Your task to perform on an android device: turn off improve location accuracy Image 0: 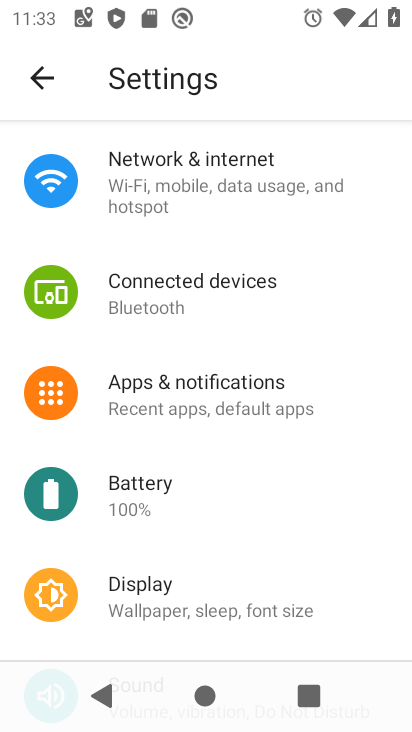
Step 0: drag from (157, 572) to (209, 291)
Your task to perform on an android device: turn off improve location accuracy Image 1: 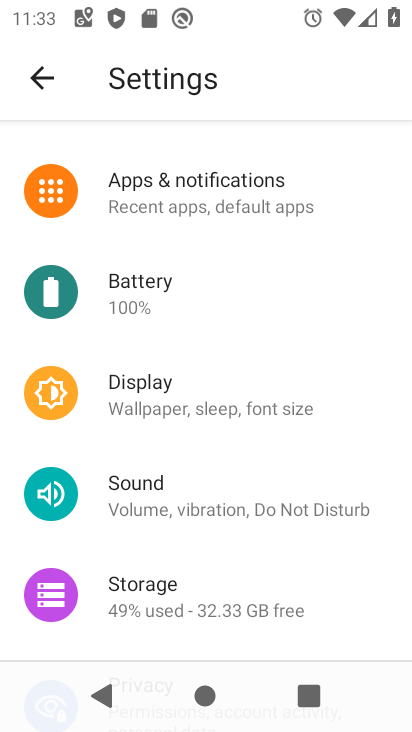
Step 1: drag from (204, 596) to (235, 325)
Your task to perform on an android device: turn off improve location accuracy Image 2: 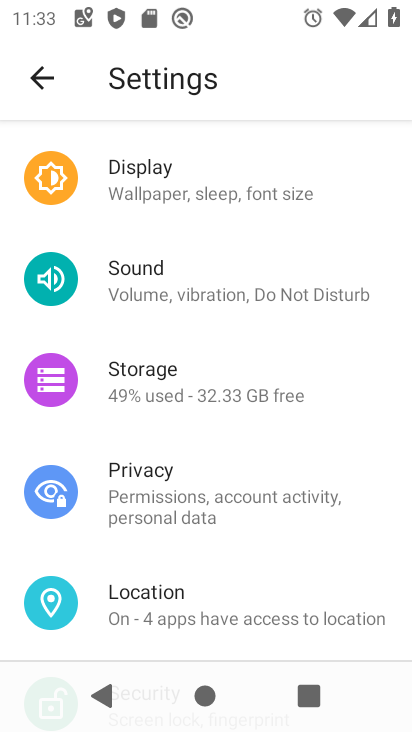
Step 2: click (182, 588)
Your task to perform on an android device: turn off improve location accuracy Image 3: 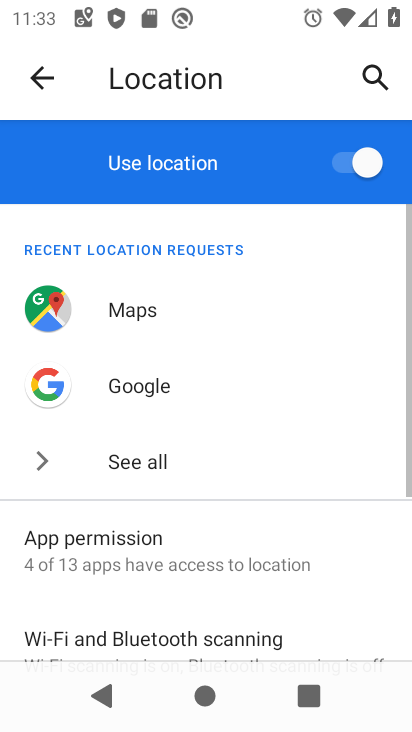
Step 3: drag from (199, 572) to (241, 247)
Your task to perform on an android device: turn off improve location accuracy Image 4: 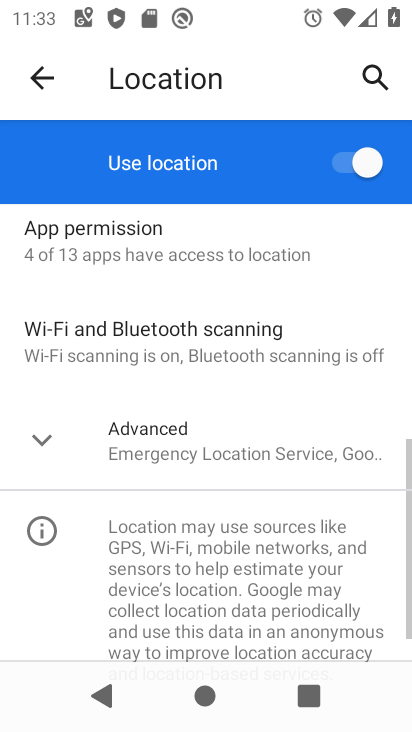
Step 4: drag from (215, 536) to (223, 360)
Your task to perform on an android device: turn off improve location accuracy Image 5: 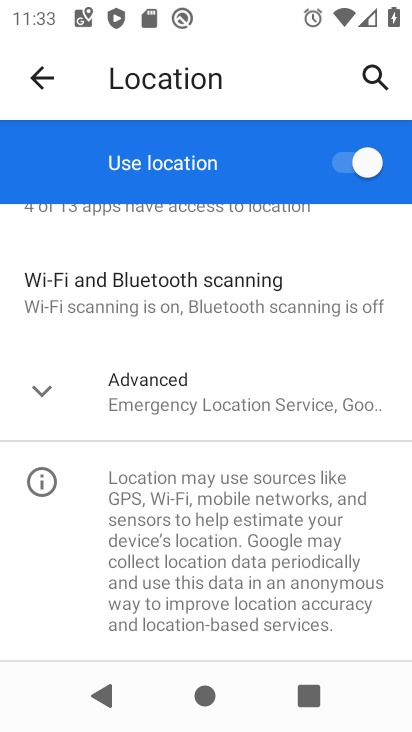
Step 5: click (113, 400)
Your task to perform on an android device: turn off improve location accuracy Image 6: 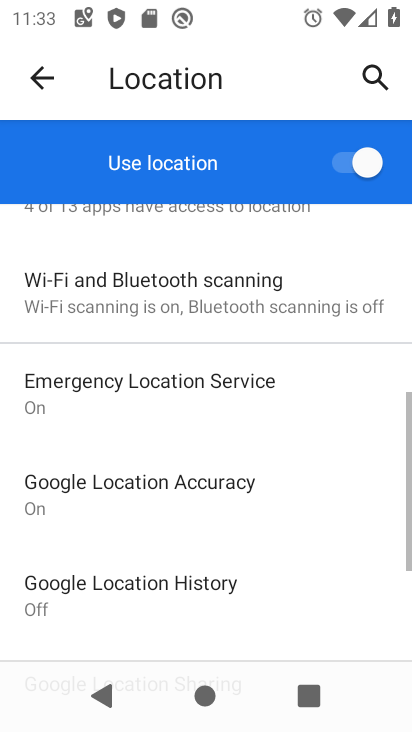
Step 6: drag from (180, 587) to (230, 423)
Your task to perform on an android device: turn off improve location accuracy Image 7: 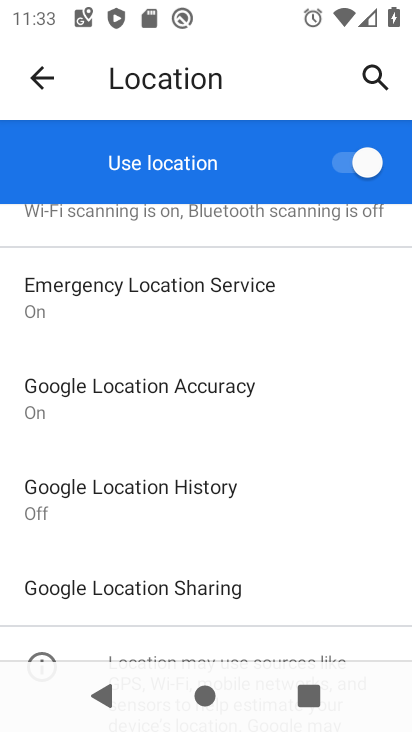
Step 7: drag from (225, 550) to (258, 424)
Your task to perform on an android device: turn off improve location accuracy Image 8: 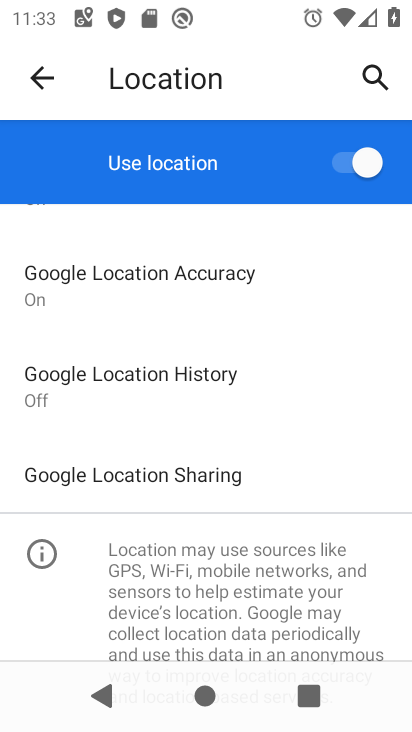
Step 8: click (208, 277)
Your task to perform on an android device: turn off improve location accuracy Image 9: 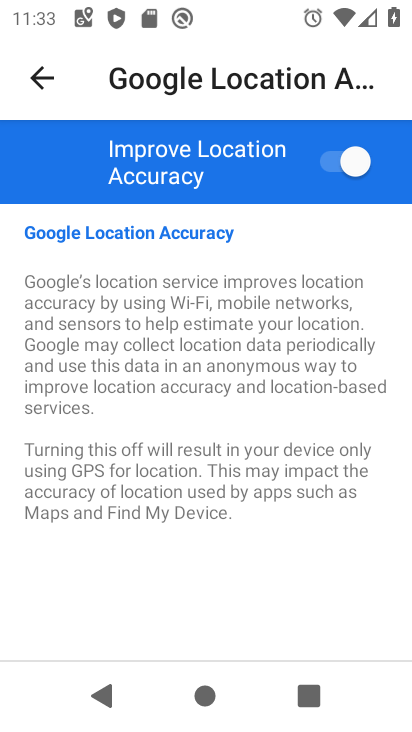
Step 9: click (322, 166)
Your task to perform on an android device: turn off improve location accuracy Image 10: 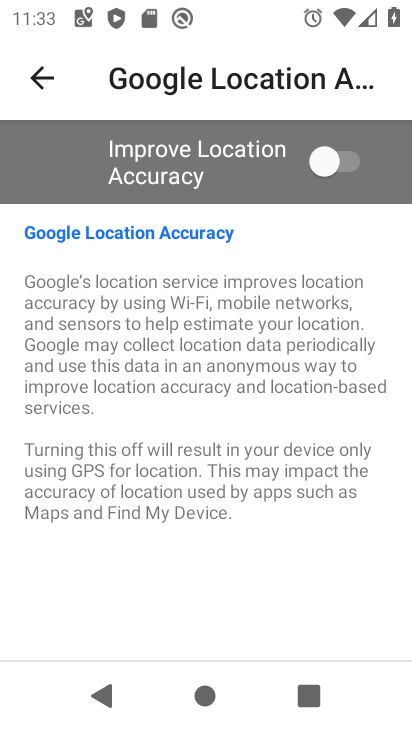
Step 10: task complete